Your task to perform on an android device: allow cookies in the chrome app Image 0: 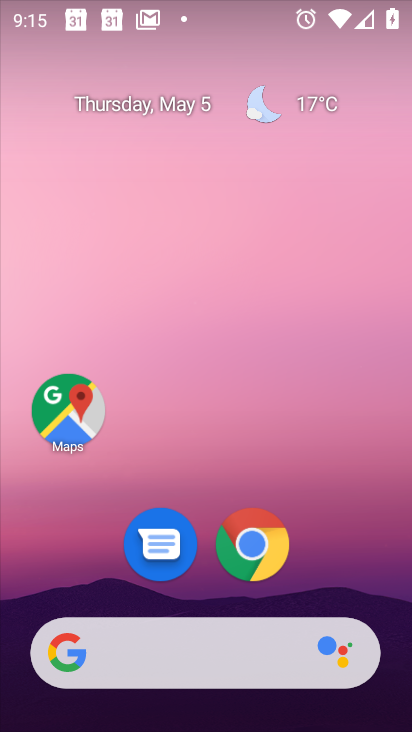
Step 0: click (405, 524)
Your task to perform on an android device: allow cookies in the chrome app Image 1: 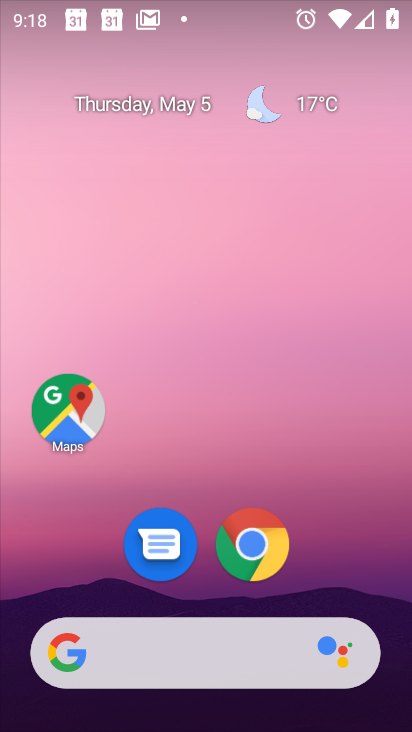
Step 1: click (279, 559)
Your task to perform on an android device: allow cookies in the chrome app Image 2: 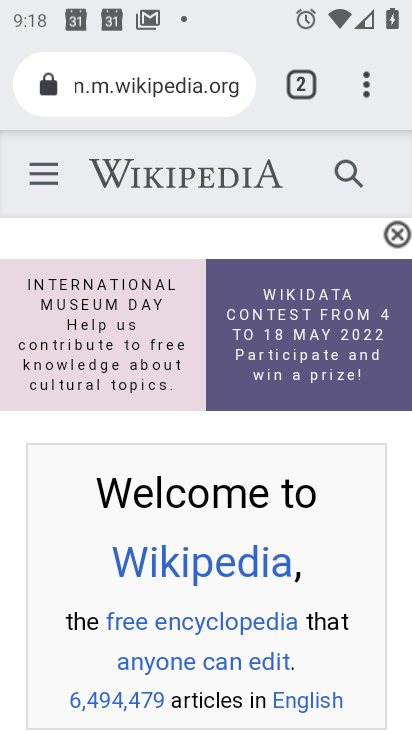
Step 2: click (371, 78)
Your task to perform on an android device: allow cookies in the chrome app Image 3: 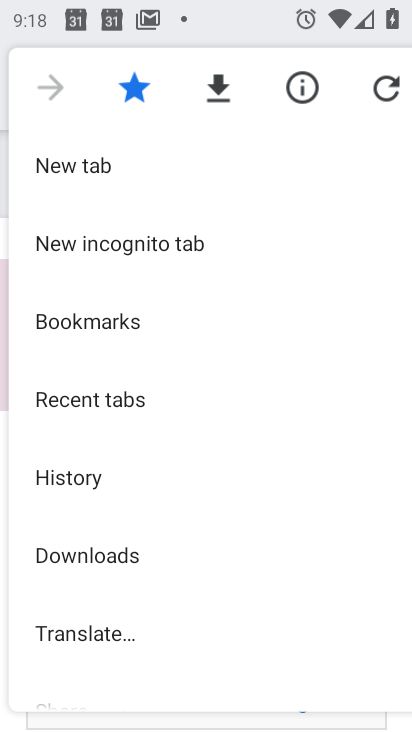
Step 3: drag from (141, 654) to (129, 406)
Your task to perform on an android device: allow cookies in the chrome app Image 4: 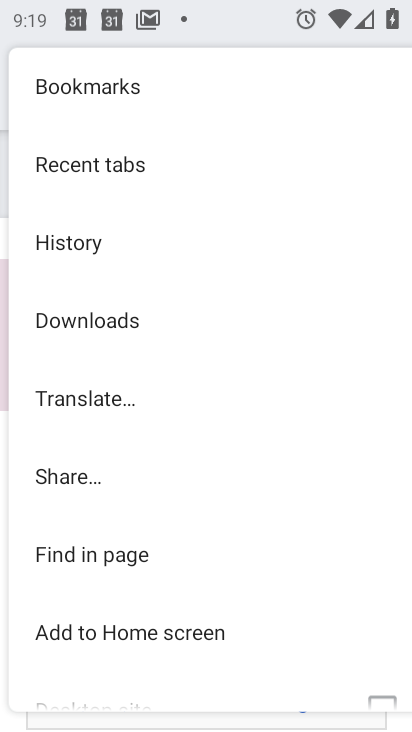
Step 4: drag from (130, 564) to (147, 281)
Your task to perform on an android device: allow cookies in the chrome app Image 5: 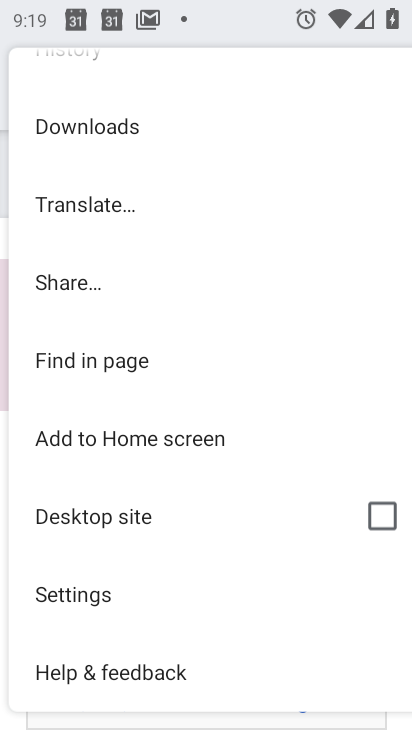
Step 5: click (172, 595)
Your task to perform on an android device: allow cookies in the chrome app Image 6: 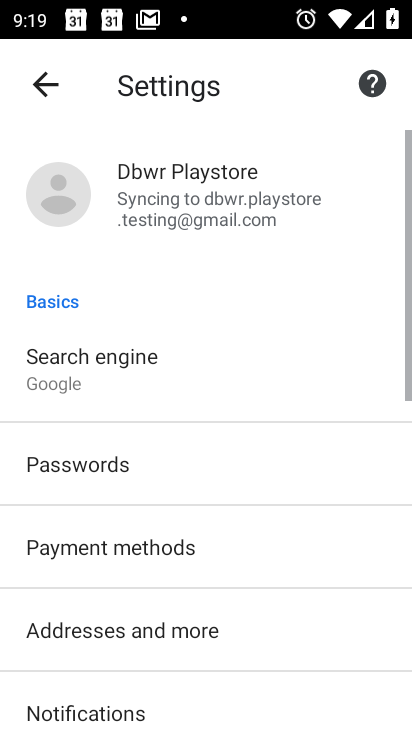
Step 6: task complete